Your task to perform on an android device: Clear the shopping cart on target.com. Search for logitech g pro on target.com, select the first entry, and add it to the cart. Image 0: 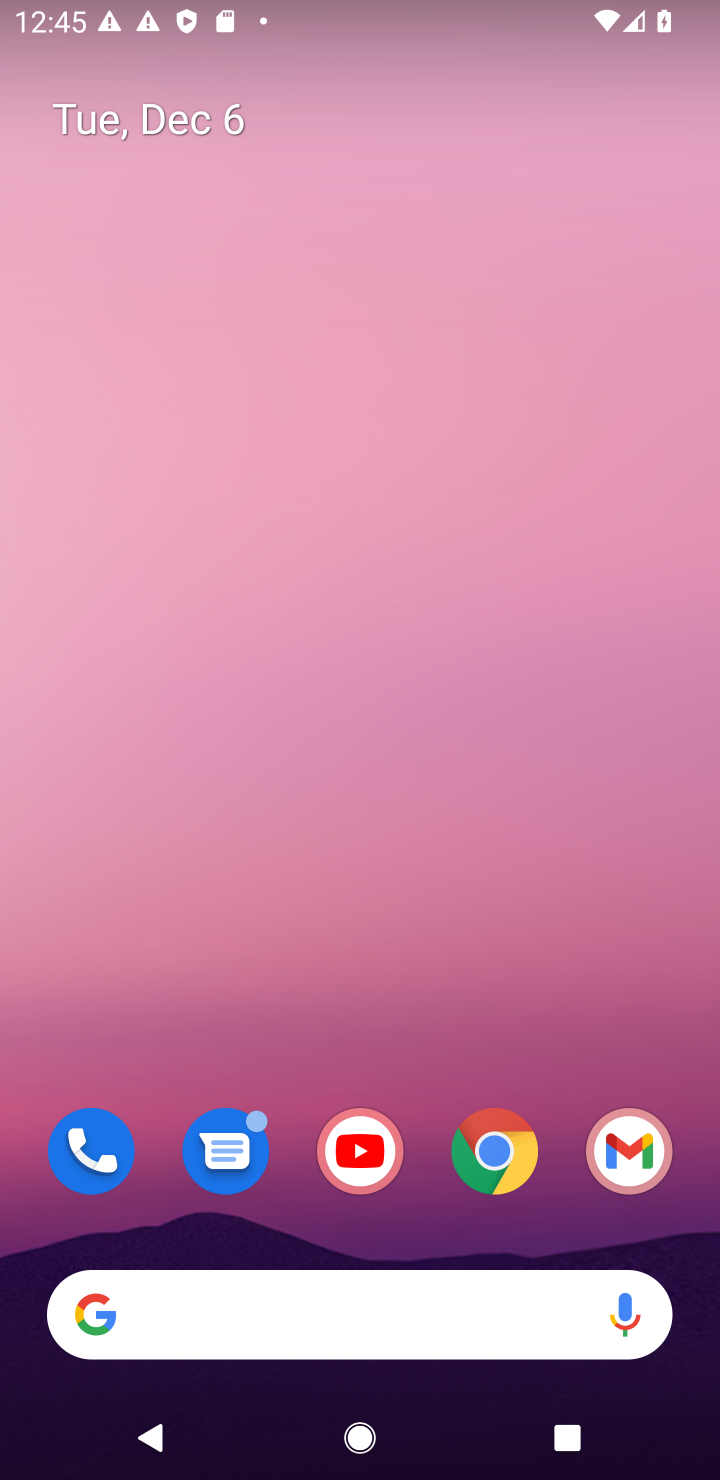
Step 0: click (500, 1152)
Your task to perform on an android device: Clear the shopping cart on target.com. Search for logitech g pro on target.com, select the first entry, and add it to the cart. Image 1: 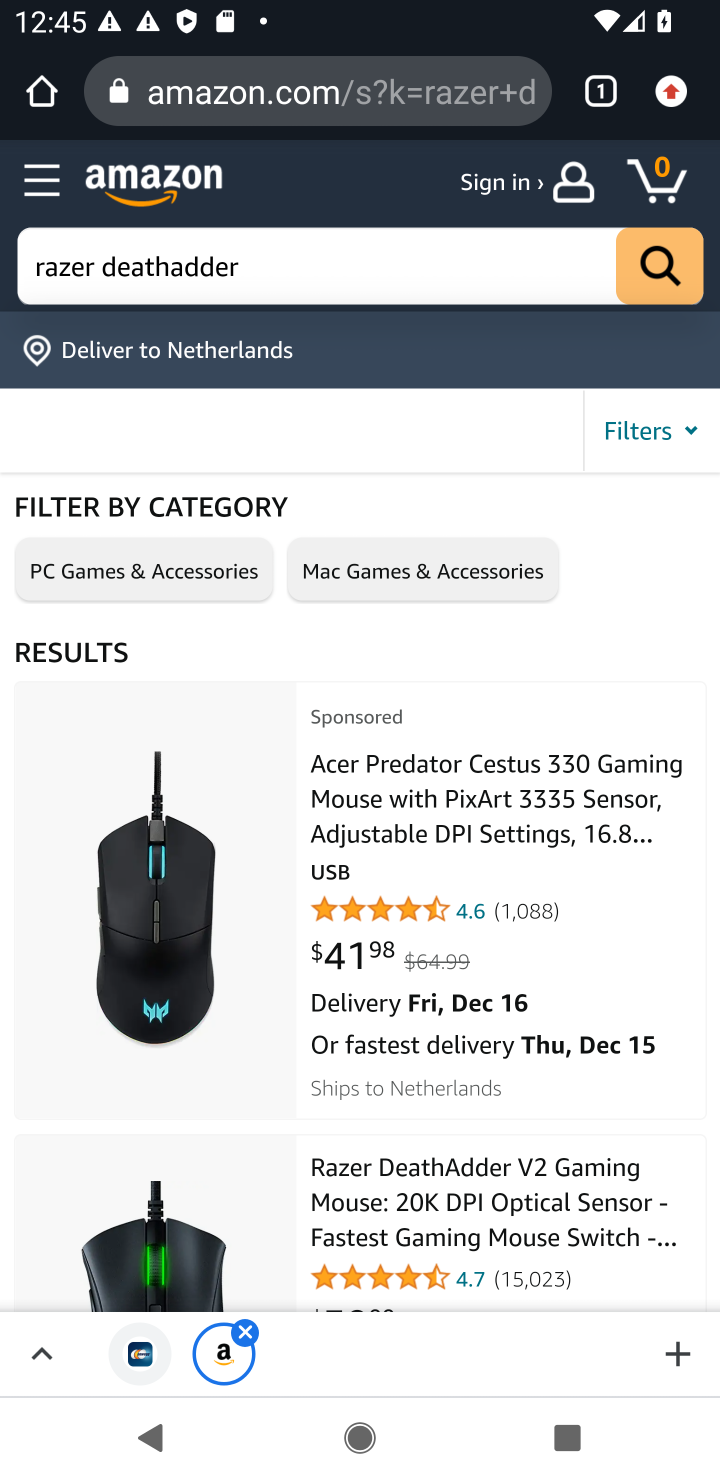
Step 1: click (226, 94)
Your task to perform on an android device: Clear the shopping cart on target.com. Search for logitech g pro on target.com, select the first entry, and add it to the cart. Image 2: 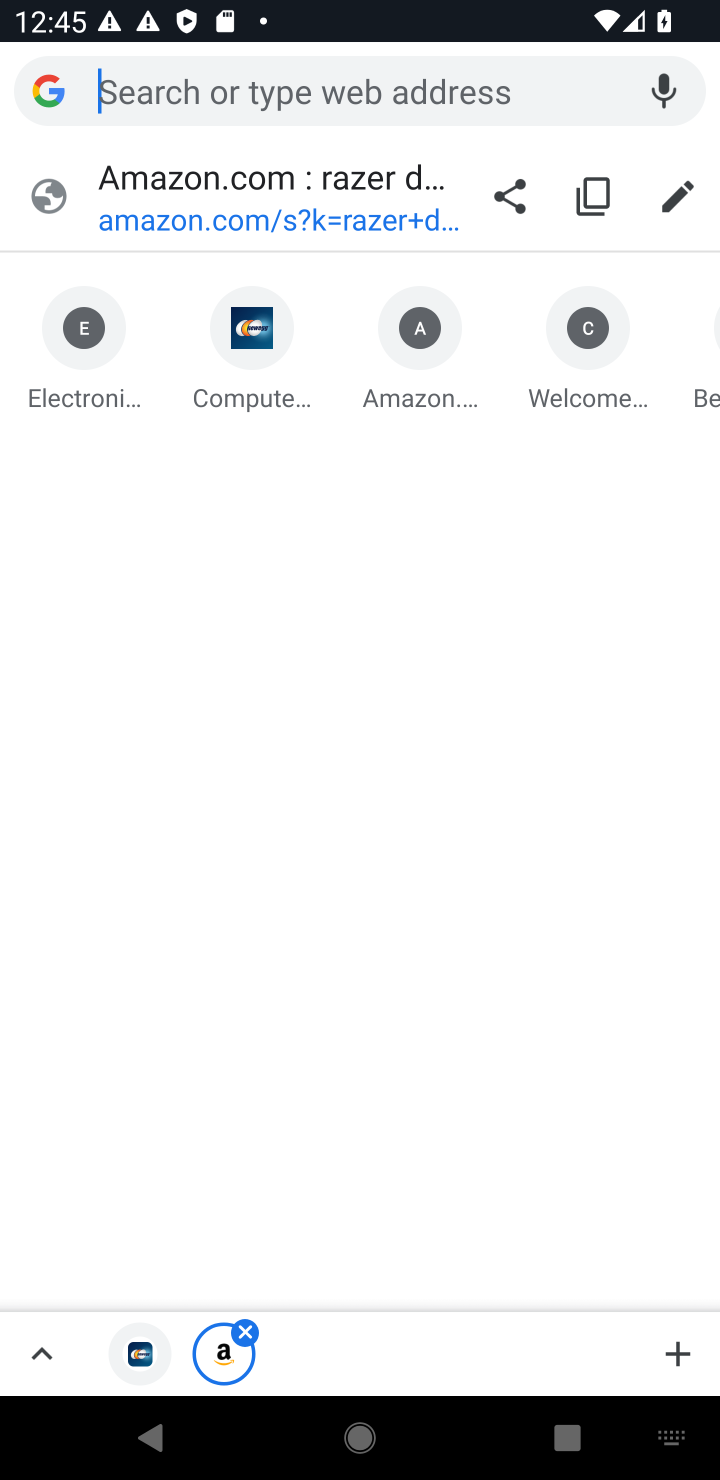
Step 2: type "target.com"
Your task to perform on an android device: Clear the shopping cart on target.com. Search for logitech g pro on target.com, select the first entry, and add it to the cart. Image 3: 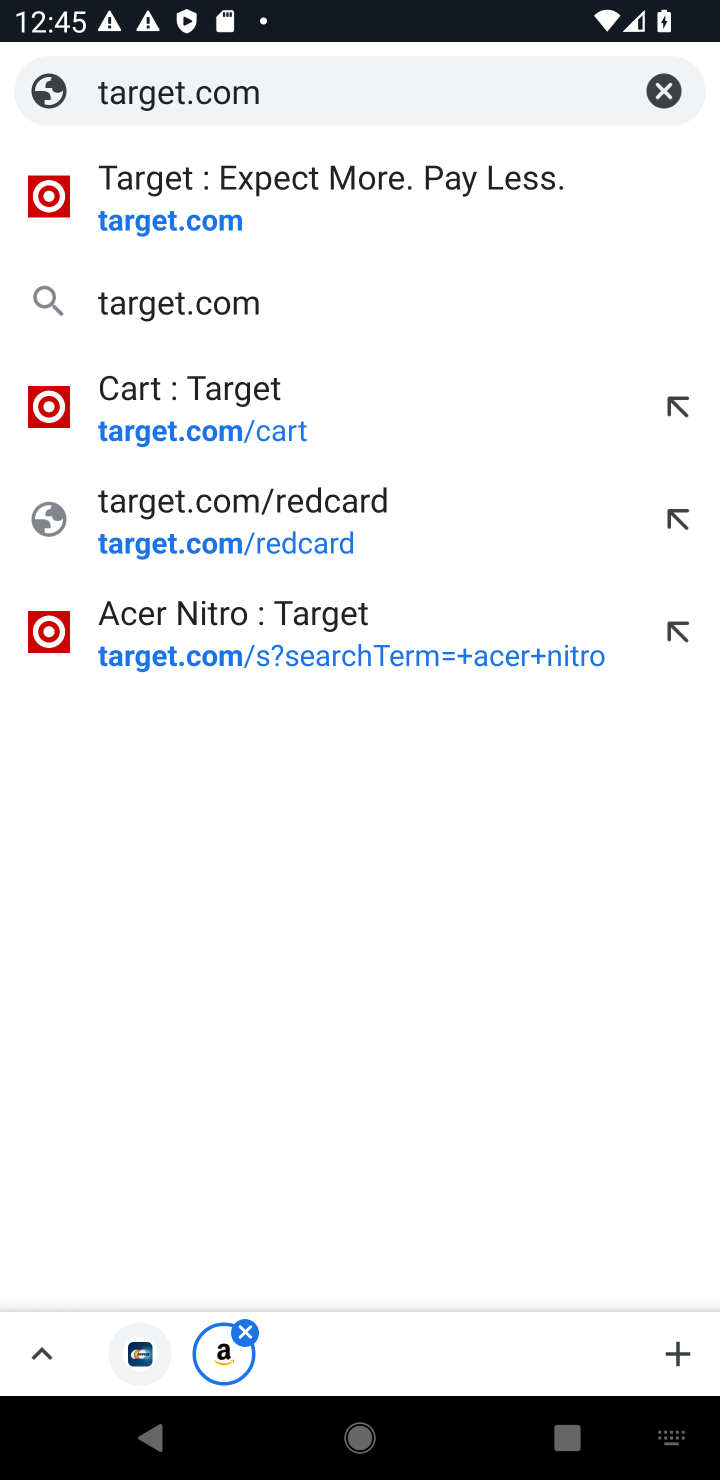
Step 3: click (149, 247)
Your task to perform on an android device: Clear the shopping cart on target.com. Search for logitech g pro on target.com, select the first entry, and add it to the cart. Image 4: 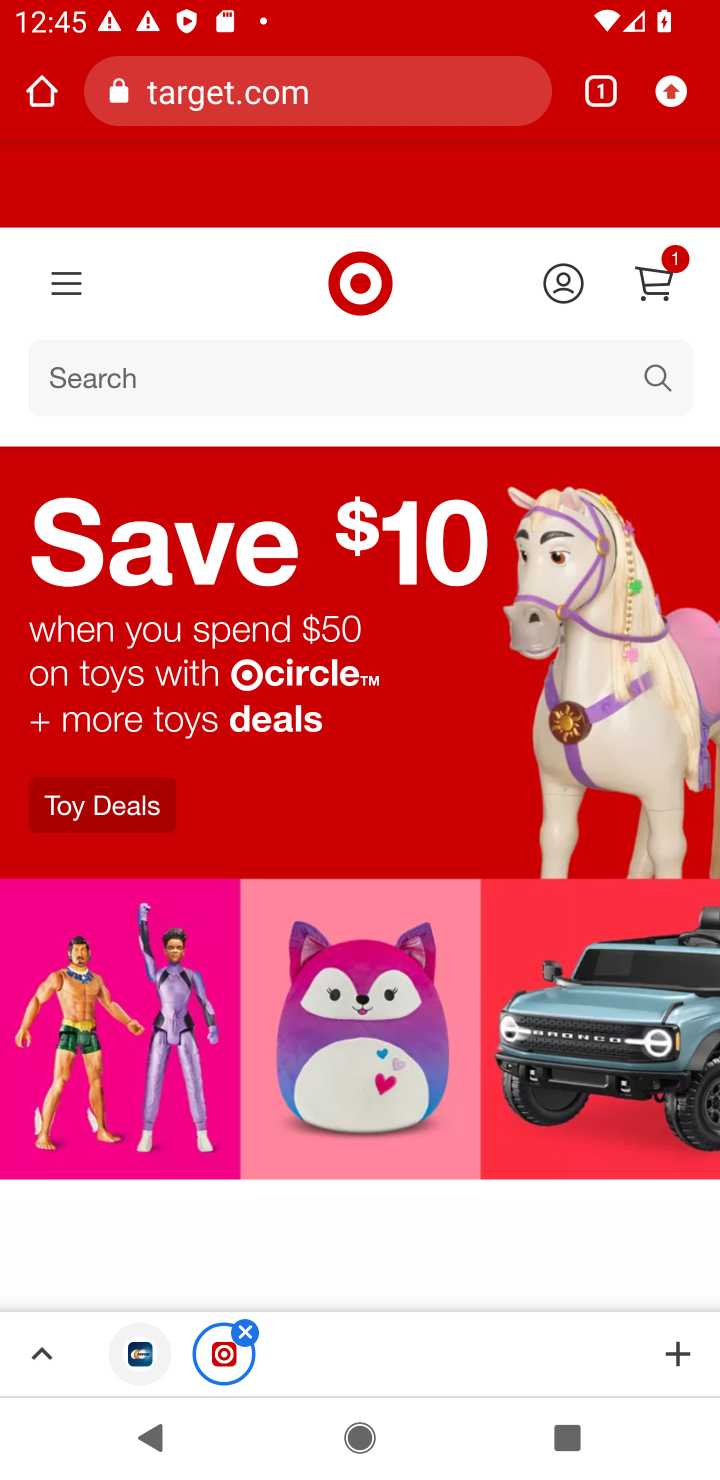
Step 4: click (650, 275)
Your task to perform on an android device: Clear the shopping cart on target.com. Search for logitech g pro on target.com, select the first entry, and add it to the cart. Image 5: 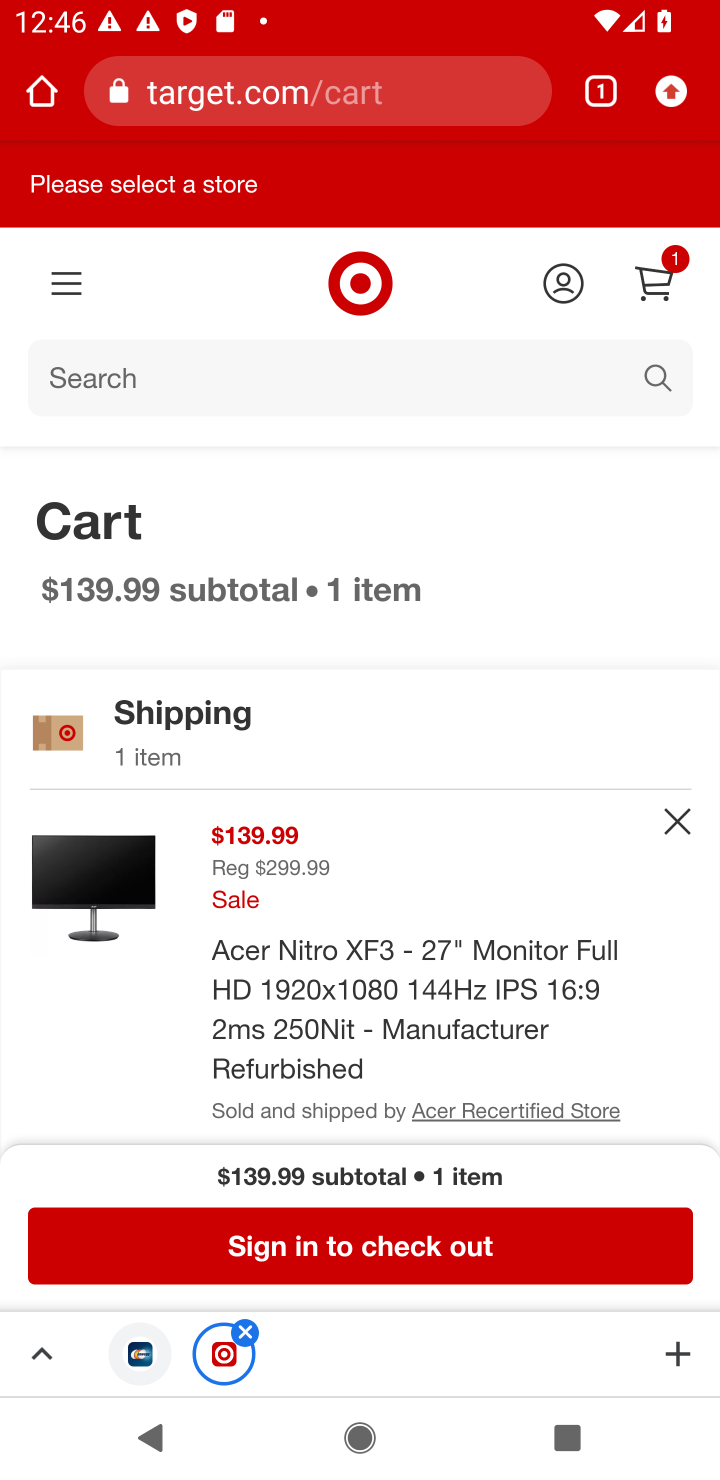
Step 5: click (676, 827)
Your task to perform on an android device: Clear the shopping cart on target.com. Search for logitech g pro on target.com, select the first entry, and add it to the cart. Image 6: 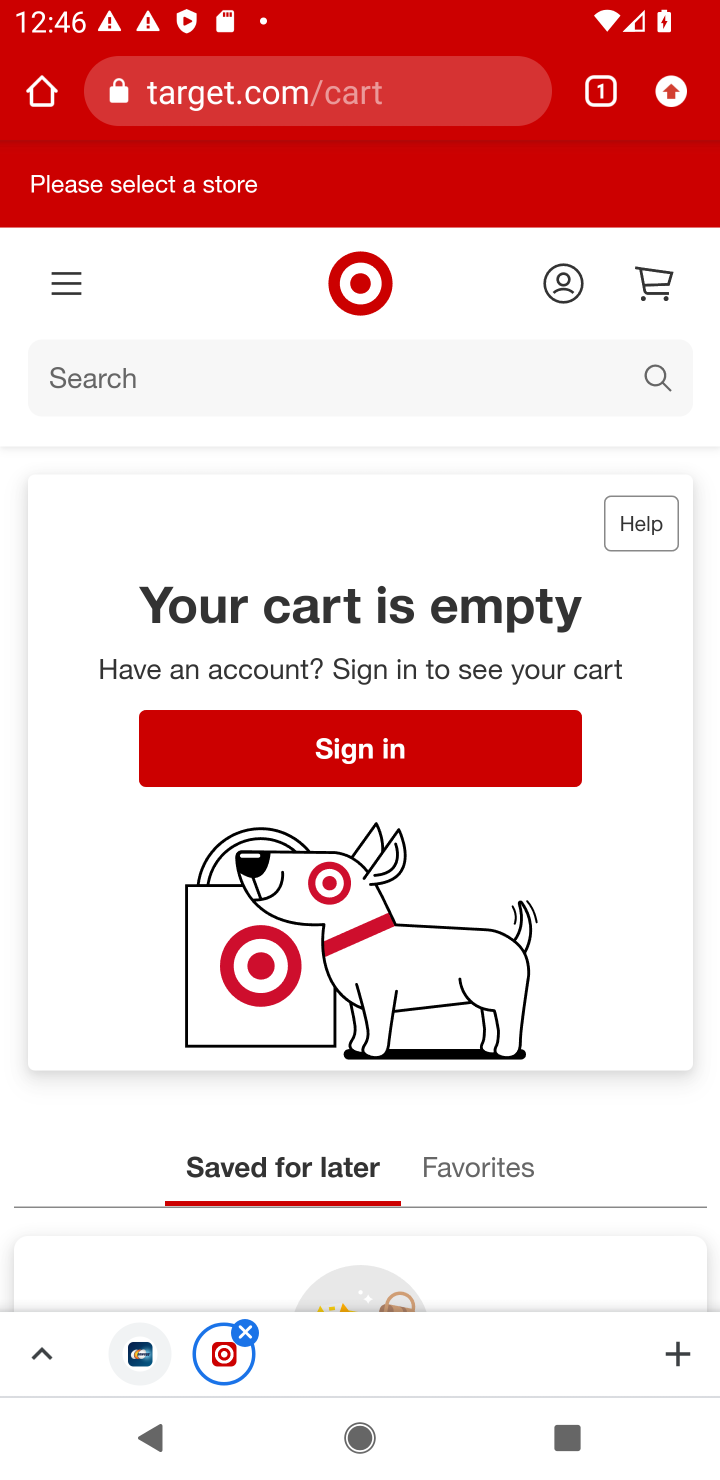
Step 6: click (83, 386)
Your task to perform on an android device: Clear the shopping cart on target.com. Search for logitech g pro on target.com, select the first entry, and add it to the cart. Image 7: 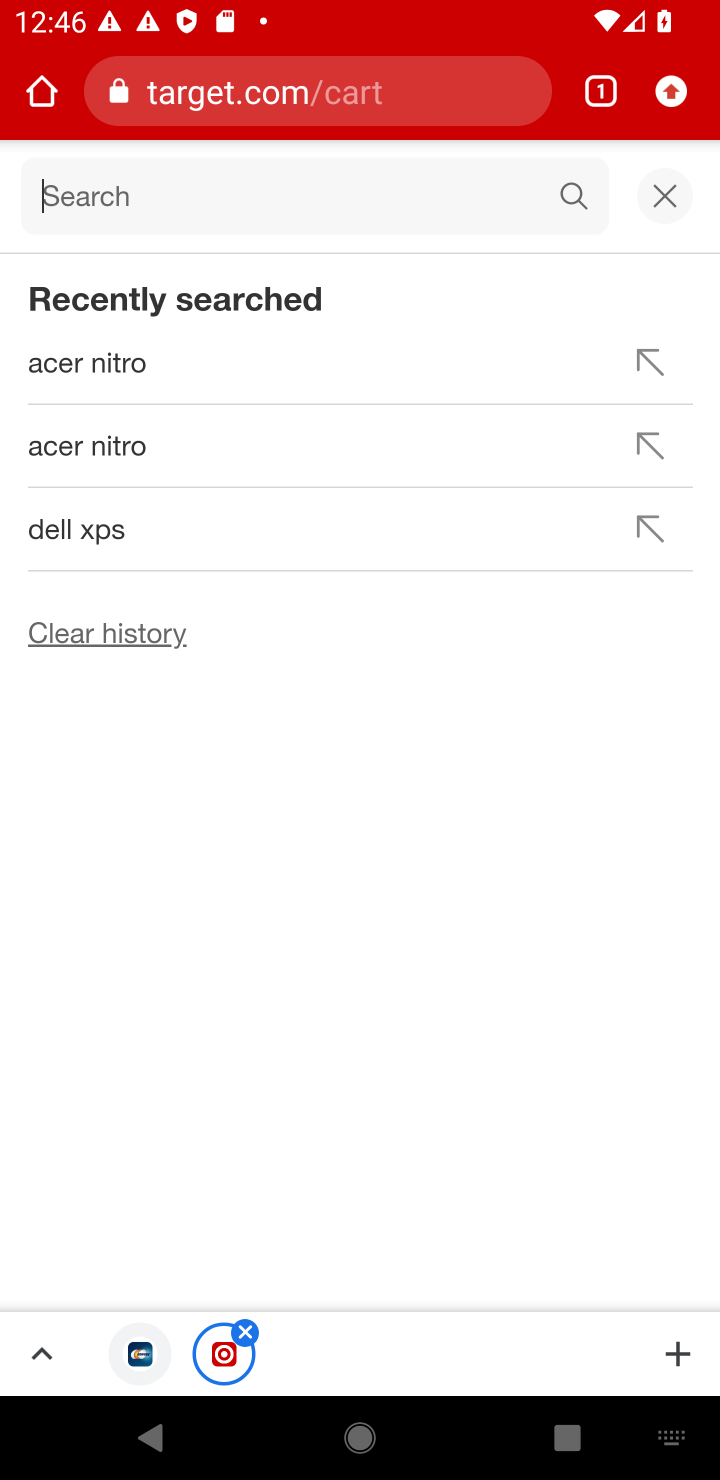
Step 7: type " logitech g pro"
Your task to perform on an android device: Clear the shopping cart on target.com. Search for logitech g pro on target.com, select the first entry, and add it to the cart. Image 8: 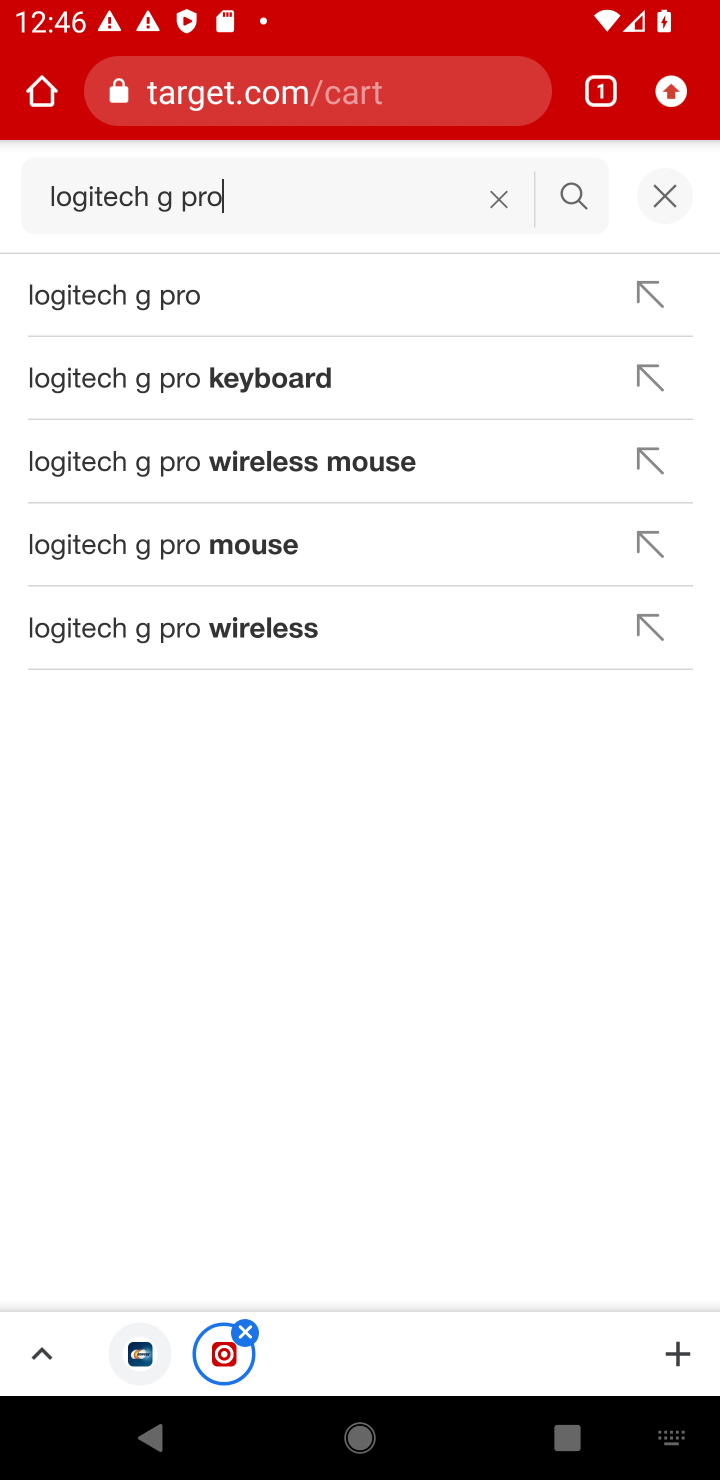
Step 8: click (118, 309)
Your task to perform on an android device: Clear the shopping cart on target.com. Search for logitech g pro on target.com, select the first entry, and add it to the cart. Image 9: 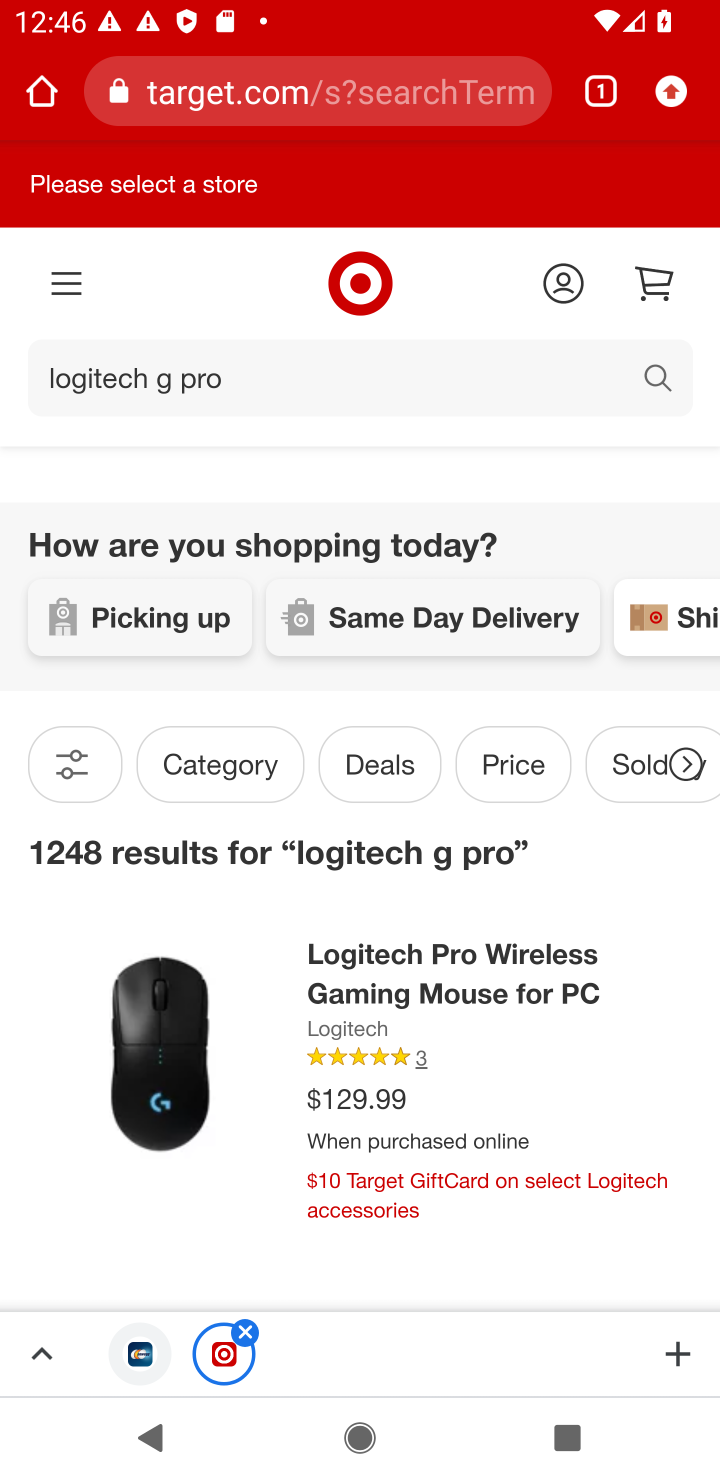
Step 9: task complete